Your task to perform on an android device: star an email in the gmail app Image 0: 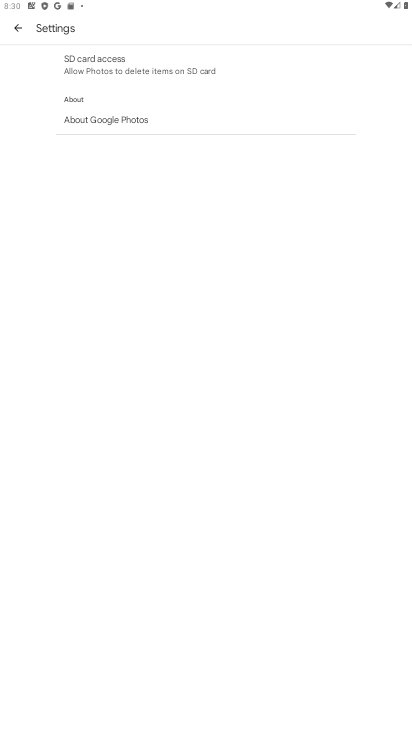
Step 0: task complete